Your task to perform on an android device: check android version Image 0: 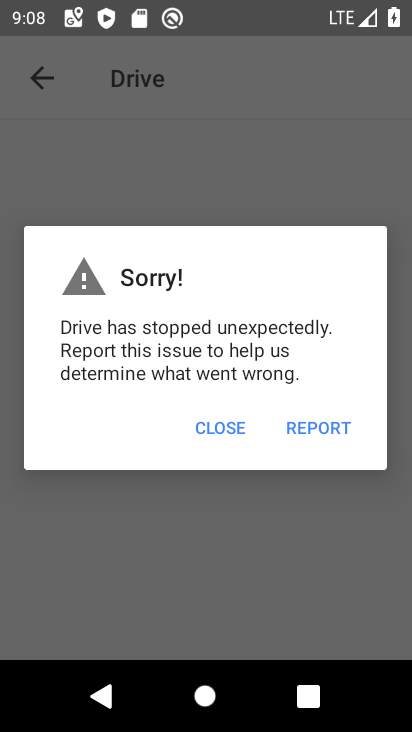
Step 0: click (238, 414)
Your task to perform on an android device: check android version Image 1: 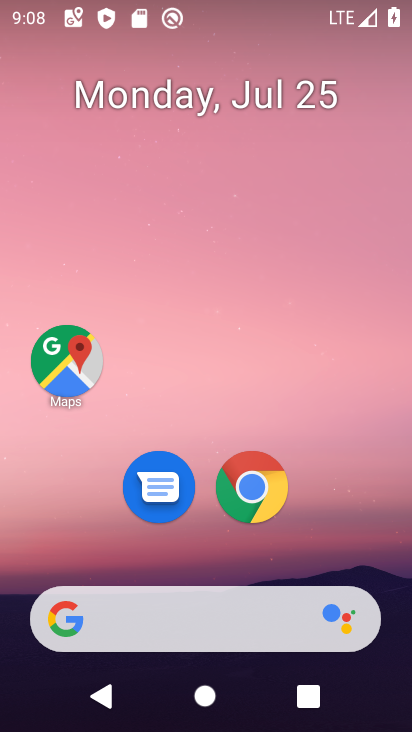
Step 1: drag from (134, 591) to (123, 5)
Your task to perform on an android device: check android version Image 2: 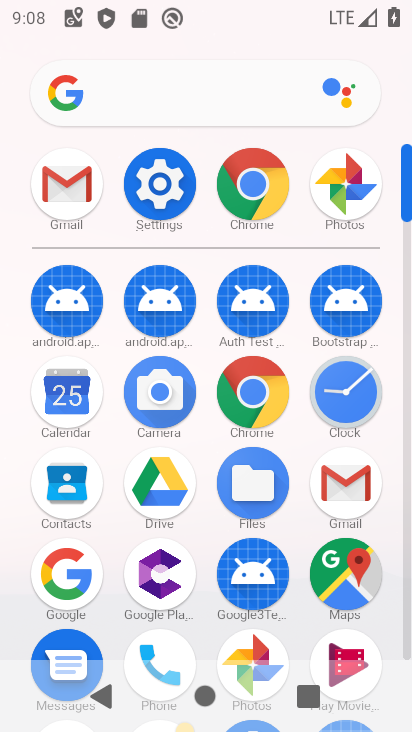
Step 2: click (167, 192)
Your task to perform on an android device: check android version Image 3: 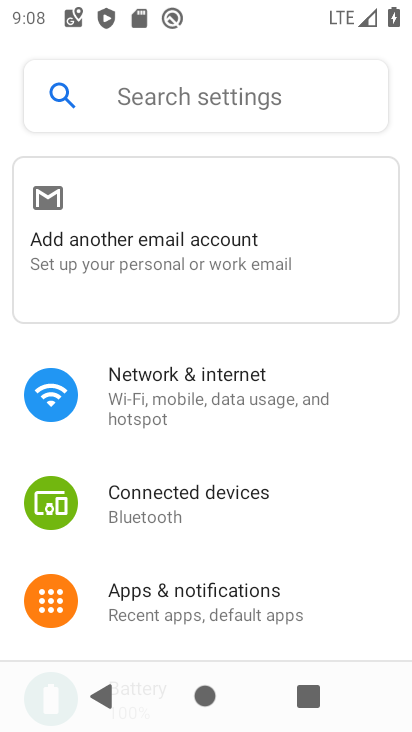
Step 3: drag from (152, 628) to (209, 28)
Your task to perform on an android device: check android version Image 4: 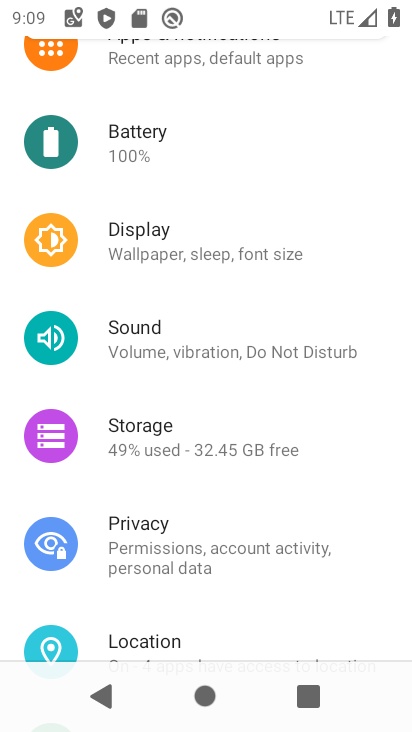
Step 4: drag from (158, 615) to (285, 9)
Your task to perform on an android device: check android version Image 5: 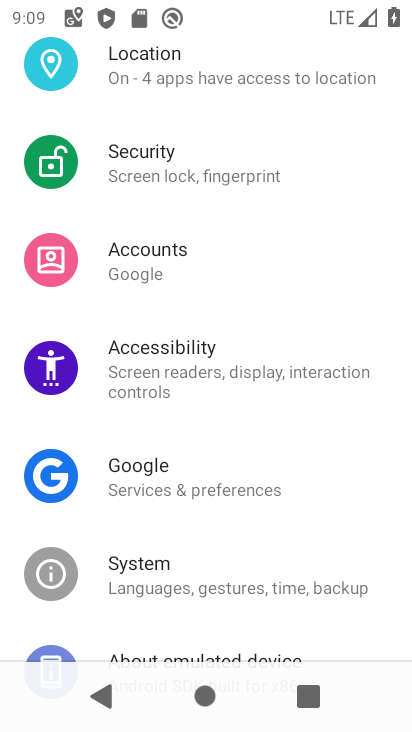
Step 5: drag from (165, 596) to (313, 12)
Your task to perform on an android device: check android version Image 6: 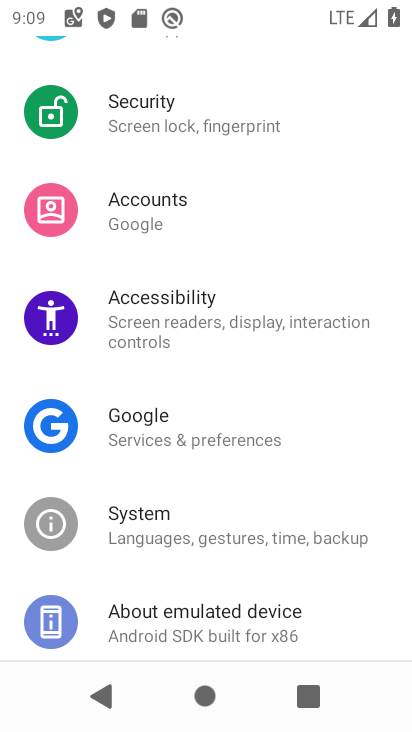
Step 6: click (164, 620)
Your task to perform on an android device: check android version Image 7: 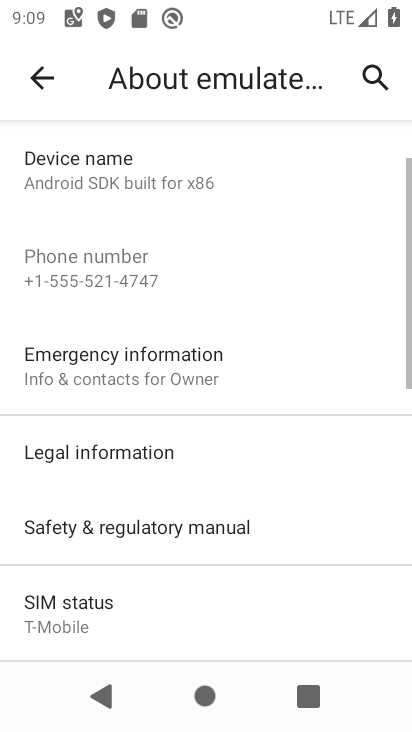
Step 7: drag from (208, 214) to (280, 32)
Your task to perform on an android device: check android version Image 8: 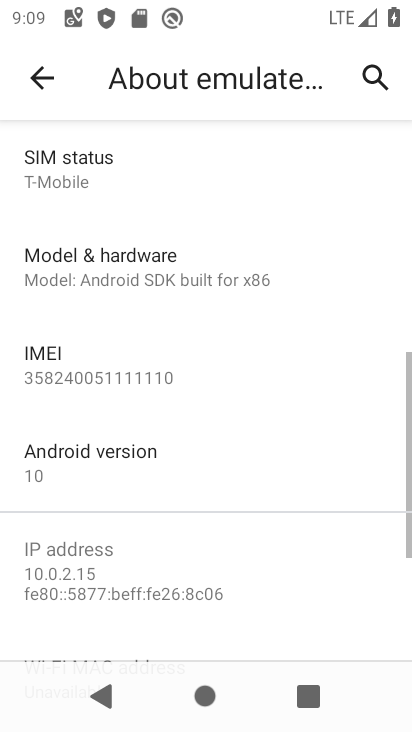
Step 8: click (110, 459)
Your task to perform on an android device: check android version Image 9: 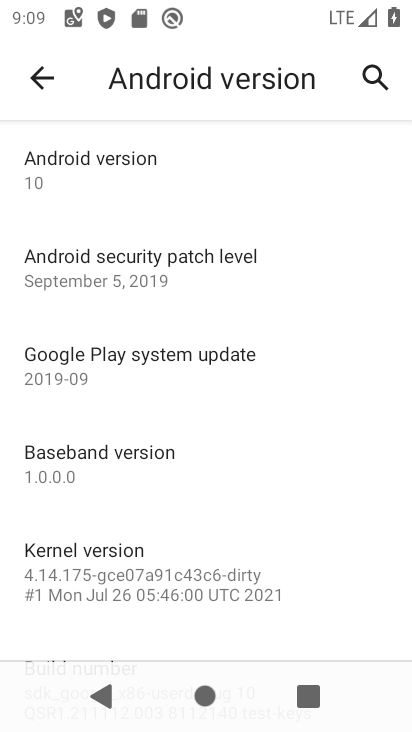
Step 9: task complete